Your task to perform on an android device: Open ESPN.com Image 0: 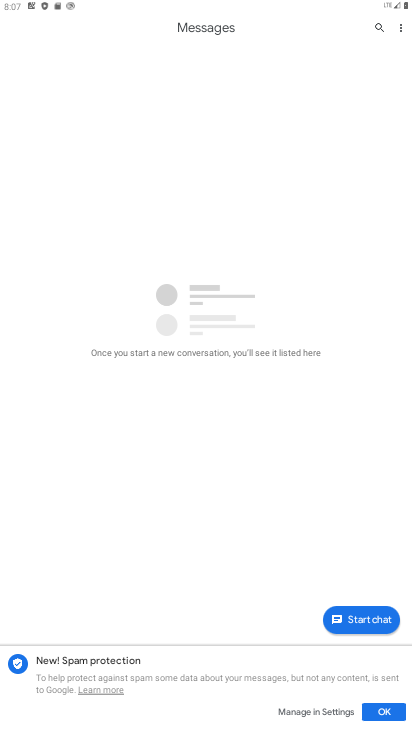
Step 0: press home button
Your task to perform on an android device: Open ESPN.com Image 1: 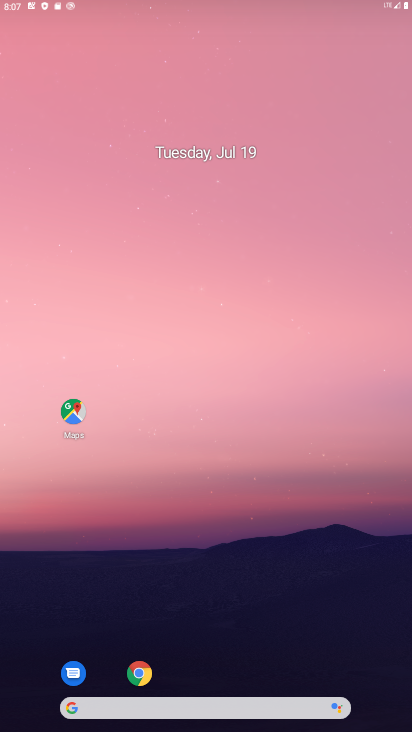
Step 1: drag from (397, 693) to (247, 70)
Your task to perform on an android device: Open ESPN.com Image 2: 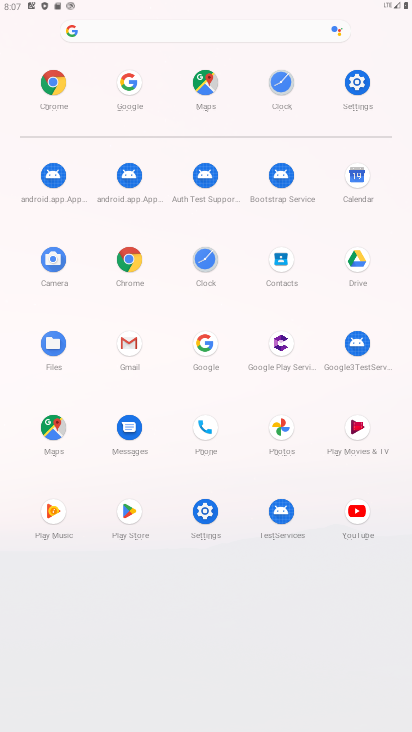
Step 2: click (201, 349)
Your task to perform on an android device: Open ESPN.com Image 3: 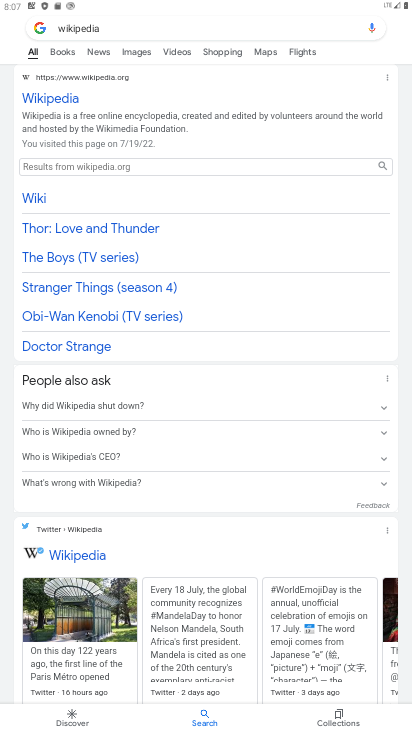
Step 3: press back button
Your task to perform on an android device: Open ESPN.com Image 4: 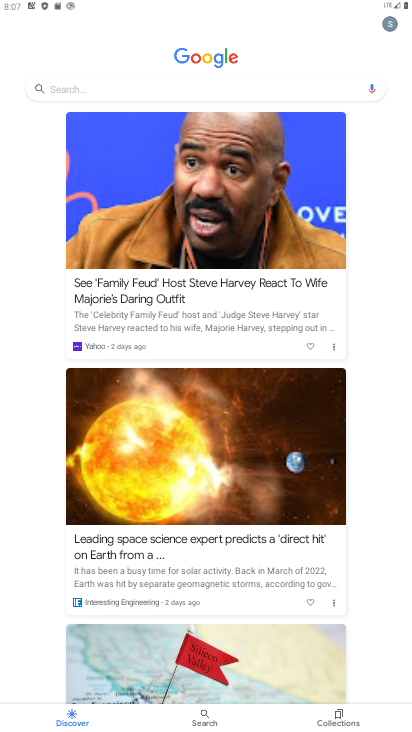
Step 4: click (81, 86)
Your task to perform on an android device: Open ESPN.com Image 5: 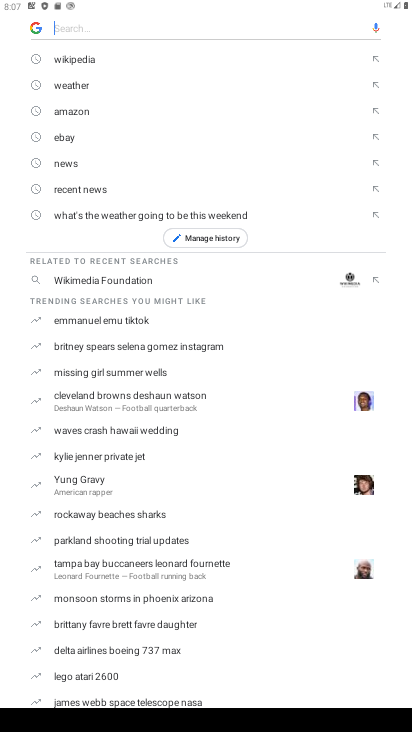
Step 5: type "ESPN.com"
Your task to perform on an android device: Open ESPN.com Image 6: 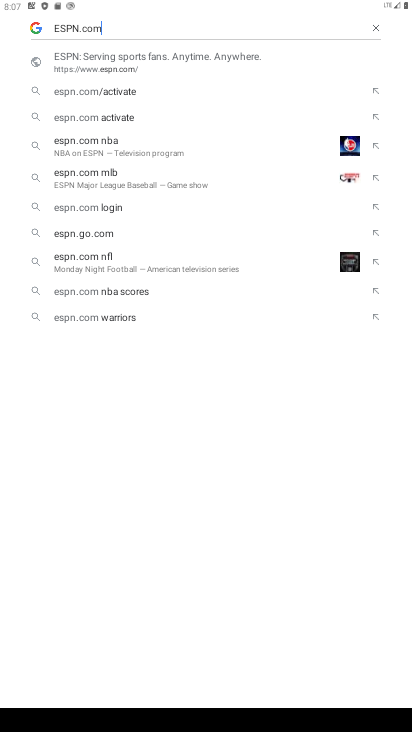
Step 6: click (78, 56)
Your task to perform on an android device: Open ESPN.com Image 7: 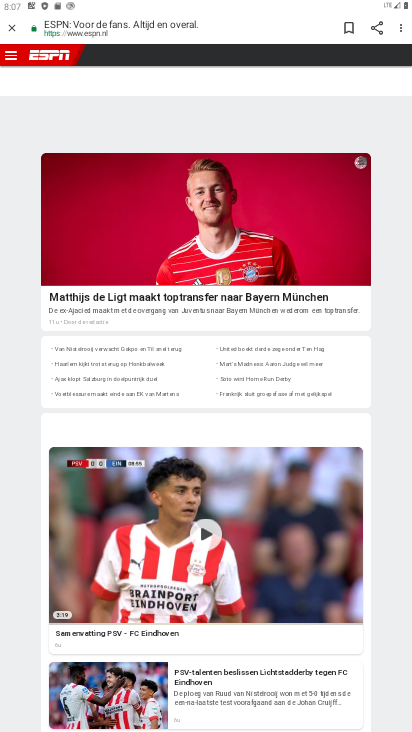
Step 7: task complete